Your task to perform on an android device: move an email to a new category in the gmail app Image 0: 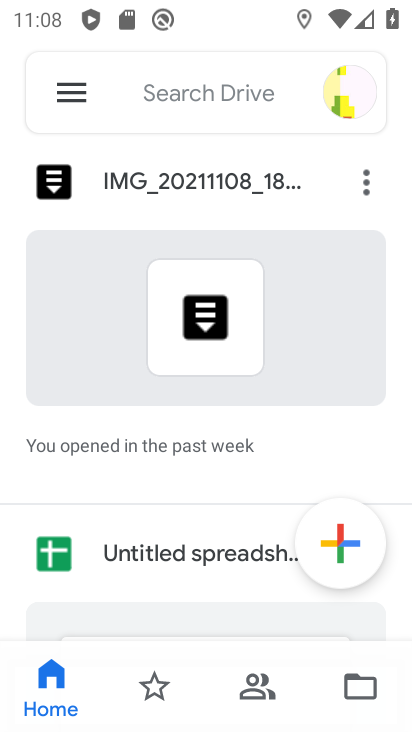
Step 0: press home button
Your task to perform on an android device: move an email to a new category in the gmail app Image 1: 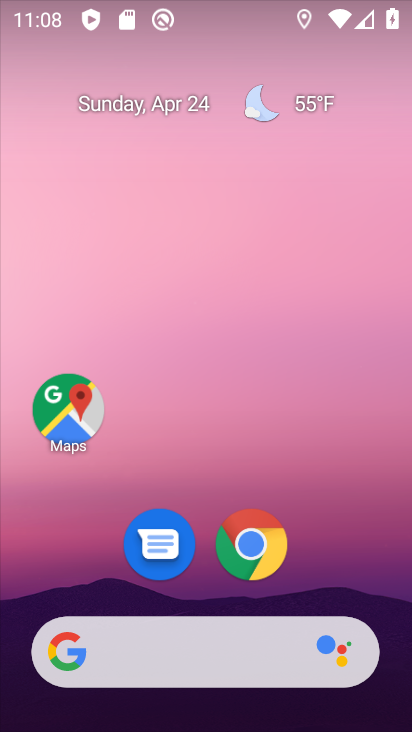
Step 1: drag from (339, 549) to (203, 64)
Your task to perform on an android device: move an email to a new category in the gmail app Image 2: 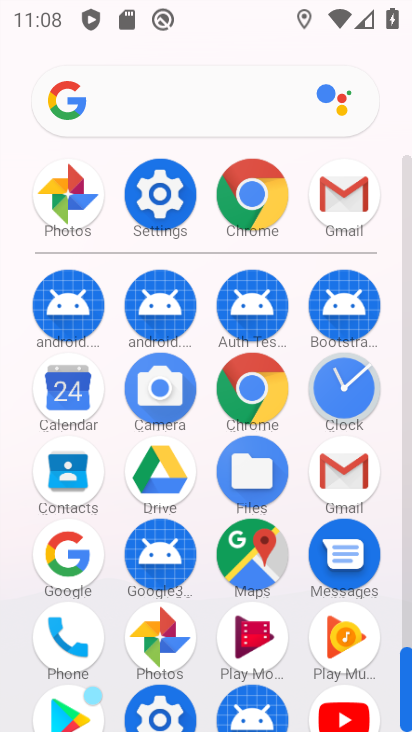
Step 2: click (339, 185)
Your task to perform on an android device: move an email to a new category in the gmail app Image 3: 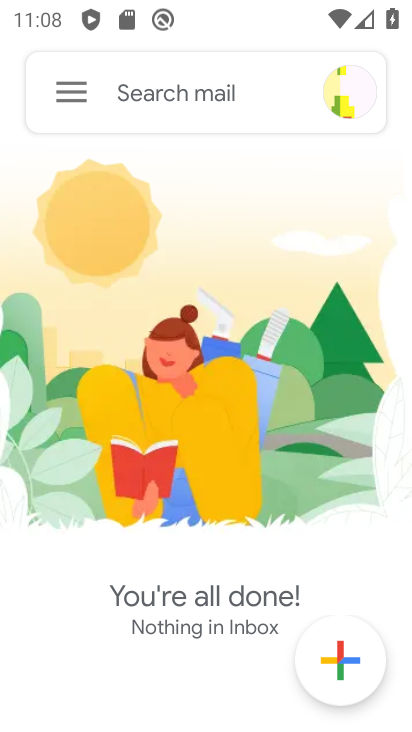
Step 3: click (78, 98)
Your task to perform on an android device: move an email to a new category in the gmail app Image 4: 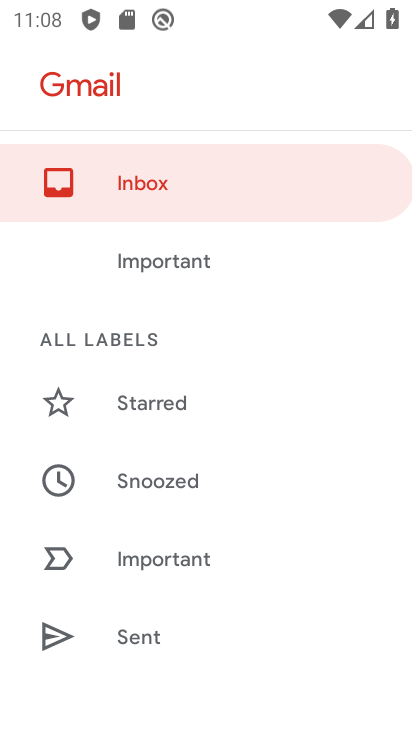
Step 4: task complete